Your task to perform on an android device: Open location settings Image 0: 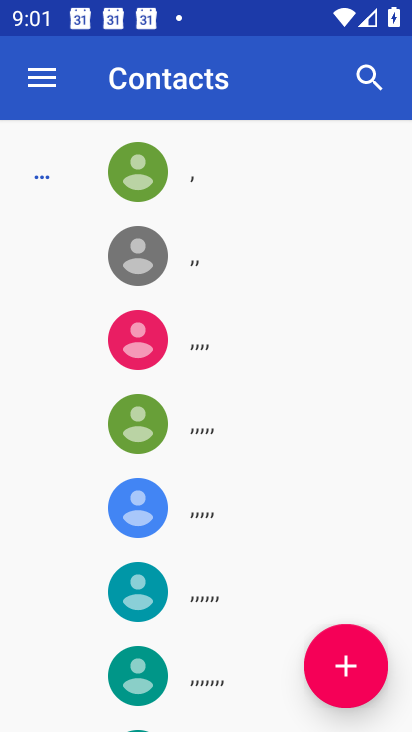
Step 0: press back button
Your task to perform on an android device: Open location settings Image 1: 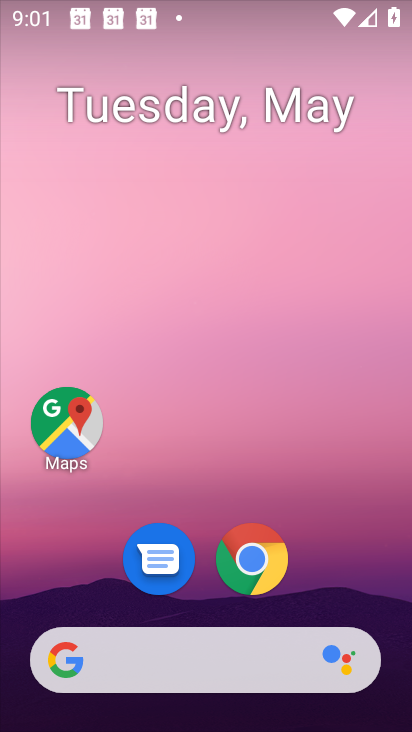
Step 1: drag from (321, 517) to (398, 0)
Your task to perform on an android device: Open location settings Image 2: 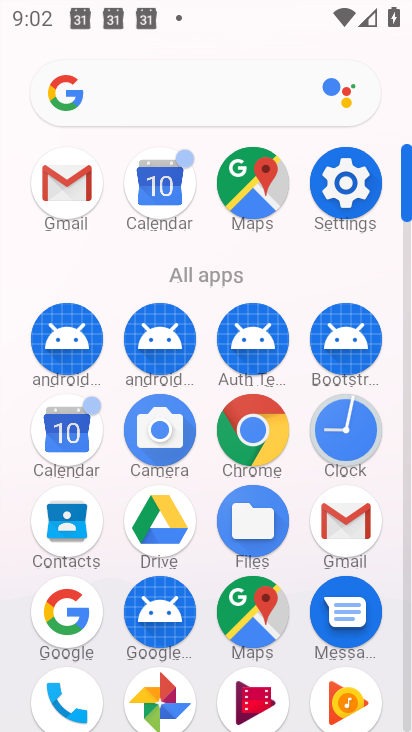
Step 2: click (347, 185)
Your task to perform on an android device: Open location settings Image 3: 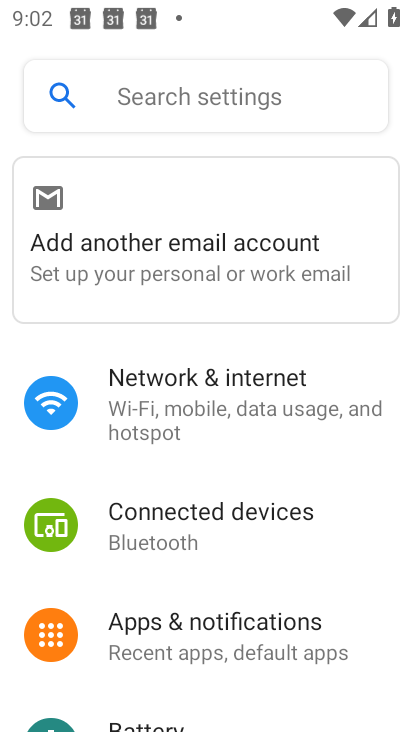
Step 3: drag from (193, 475) to (217, 341)
Your task to perform on an android device: Open location settings Image 4: 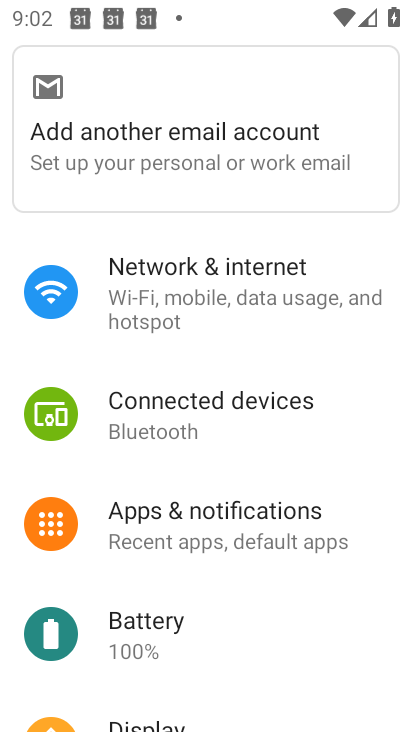
Step 4: drag from (182, 589) to (246, 453)
Your task to perform on an android device: Open location settings Image 5: 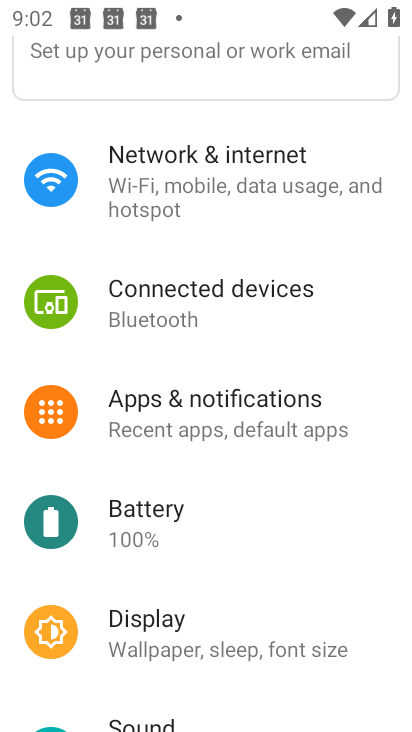
Step 5: drag from (204, 582) to (262, 454)
Your task to perform on an android device: Open location settings Image 6: 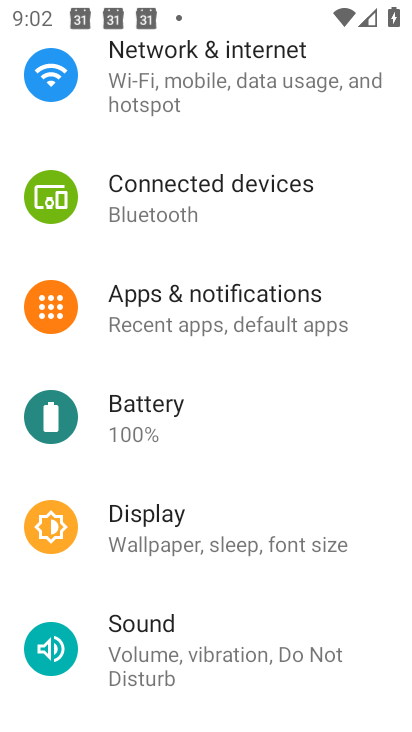
Step 6: drag from (191, 585) to (239, 462)
Your task to perform on an android device: Open location settings Image 7: 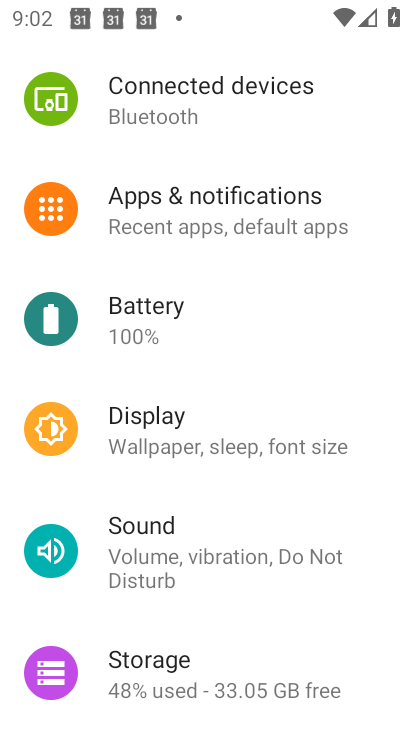
Step 7: drag from (186, 615) to (244, 508)
Your task to perform on an android device: Open location settings Image 8: 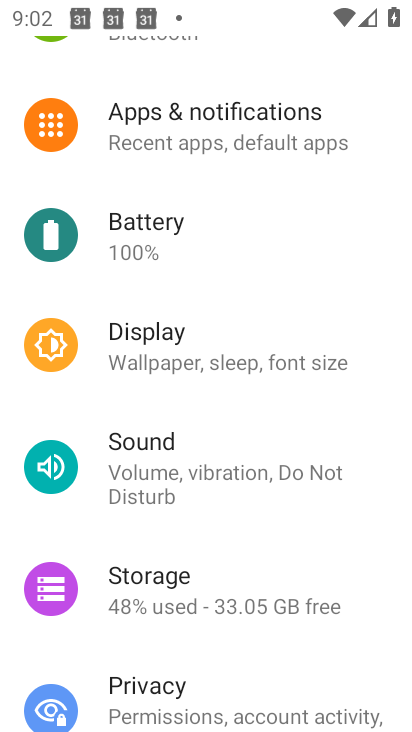
Step 8: drag from (192, 638) to (259, 540)
Your task to perform on an android device: Open location settings Image 9: 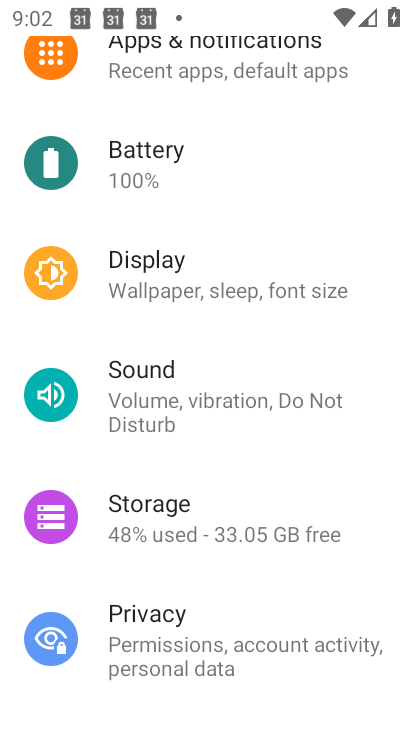
Step 9: drag from (195, 683) to (265, 552)
Your task to perform on an android device: Open location settings Image 10: 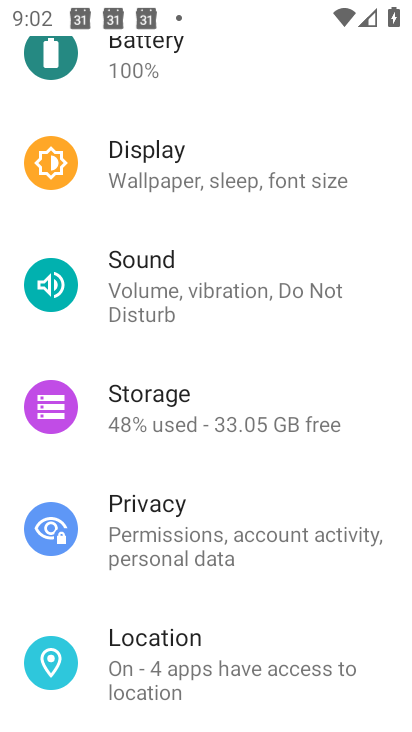
Step 10: drag from (241, 605) to (319, 512)
Your task to perform on an android device: Open location settings Image 11: 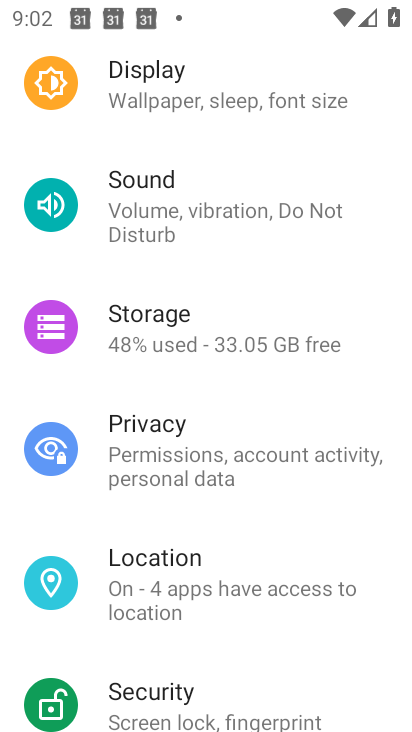
Step 11: click (188, 573)
Your task to perform on an android device: Open location settings Image 12: 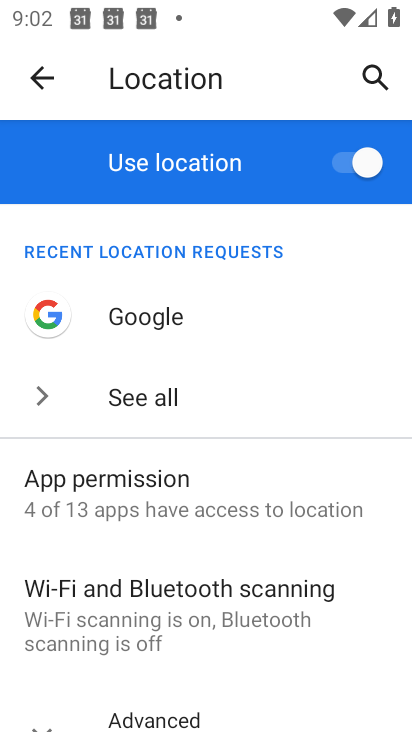
Step 12: task complete